Your task to perform on an android device: turn on bluetooth scan Image 0: 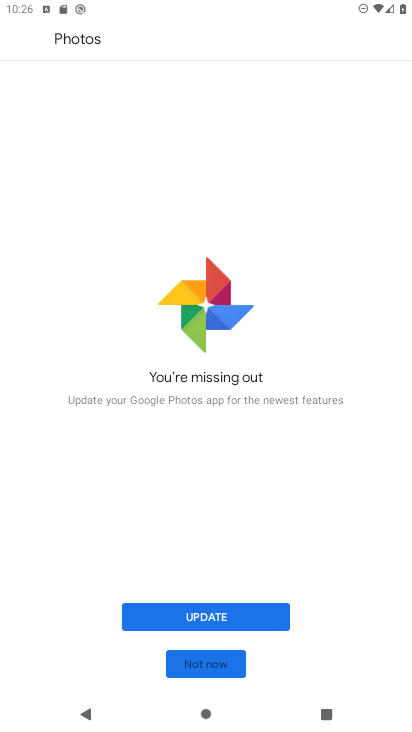
Step 0: press home button
Your task to perform on an android device: turn on bluetooth scan Image 1: 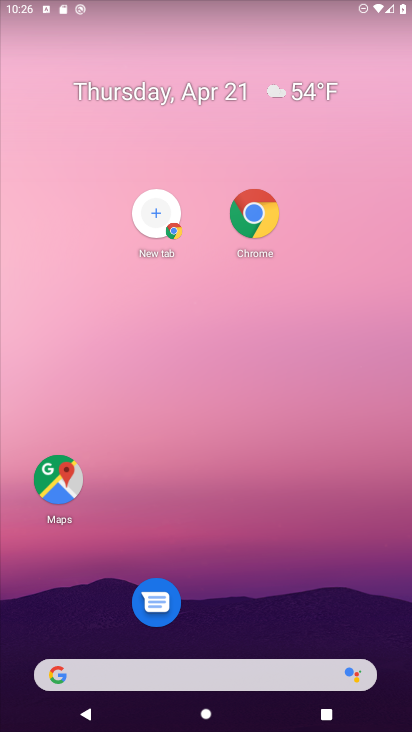
Step 1: drag from (256, 627) to (191, 51)
Your task to perform on an android device: turn on bluetooth scan Image 2: 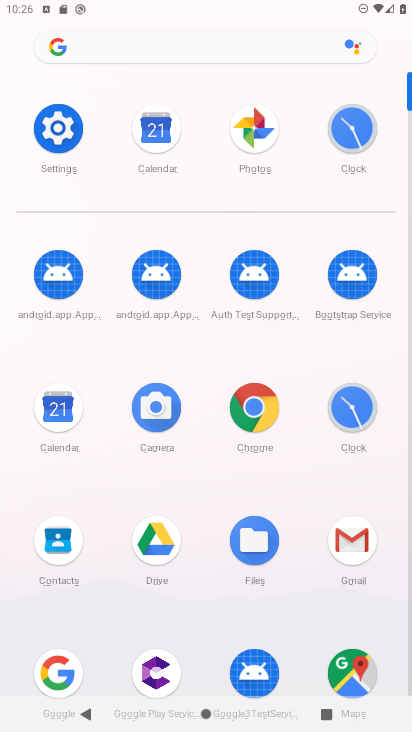
Step 2: click (72, 120)
Your task to perform on an android device: turn on bluetooth scan Image 3: 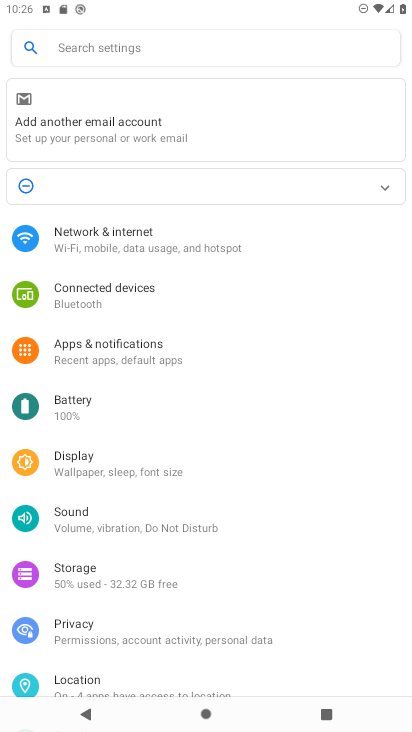
Step 3: click (77, 683)
Your task to perform on an android device: turn on bluetooth scan Image 4: 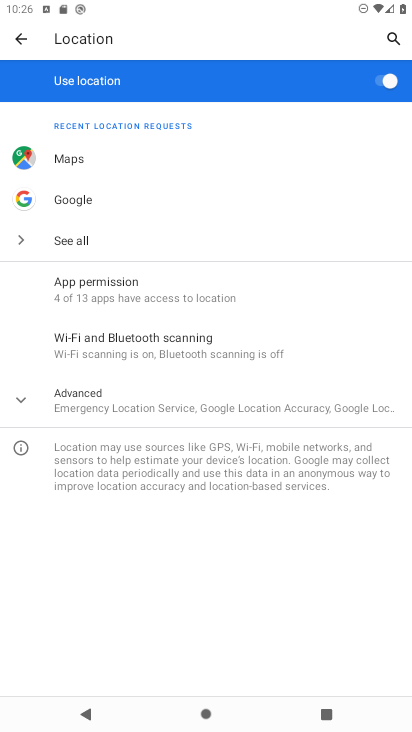
Step 4: click (140, 356)
Your task to perform on an android device: turn on bluetooth scan Image 5: 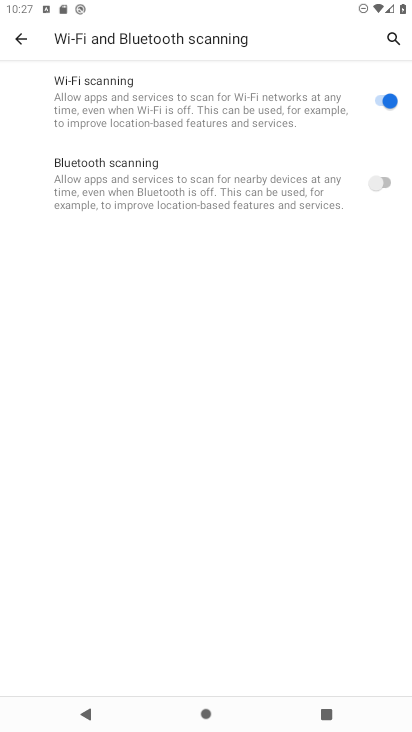
Step 5: click (382, 182)
Your task to perform on an android device: turn on bluetooth scan Image 6: 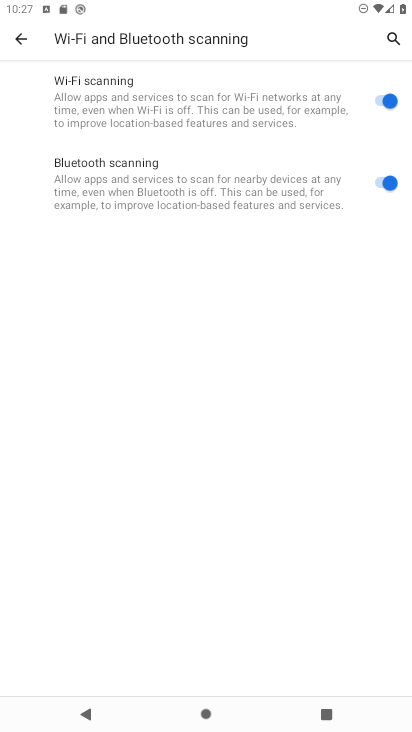
Step 6: task complete